Your task to perform on an android device: change notifications settings Image 0: 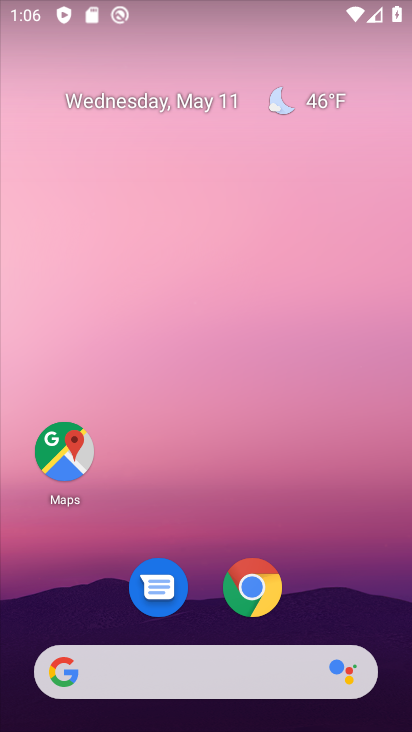
Step 0: press home button
Your task to perform on an android device: change notifications settings Image 1: 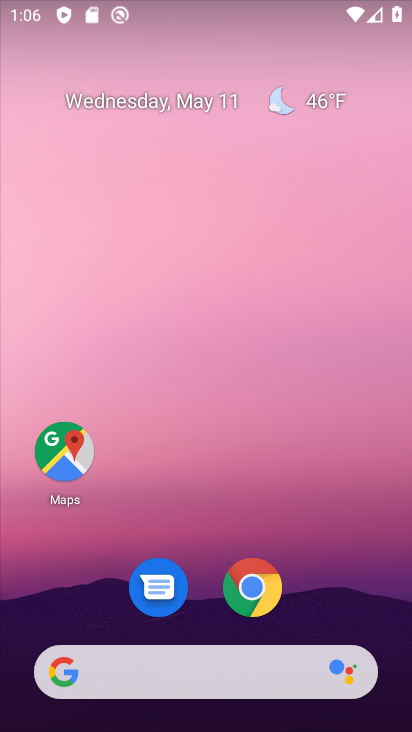
Step 1: drag from (299, 386) to (293, 4)
Your task to perform on an android device: change notifications settings Image 2: 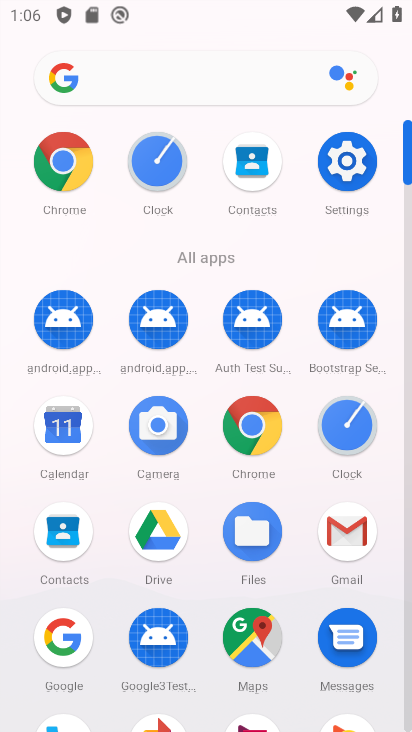
Step 2: click (335, 160)
Your task to perform on an android device: change notifications settings Image 3: 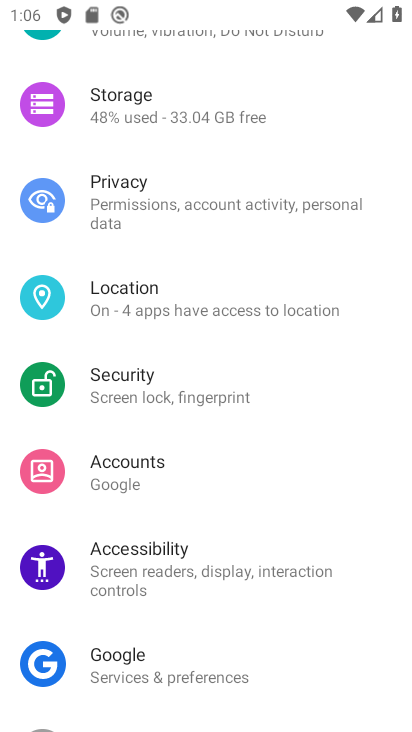
Step 3: drag from (157, 386) to (46, 696)
Your task to perform on an android device: change notifications settings Image 4: 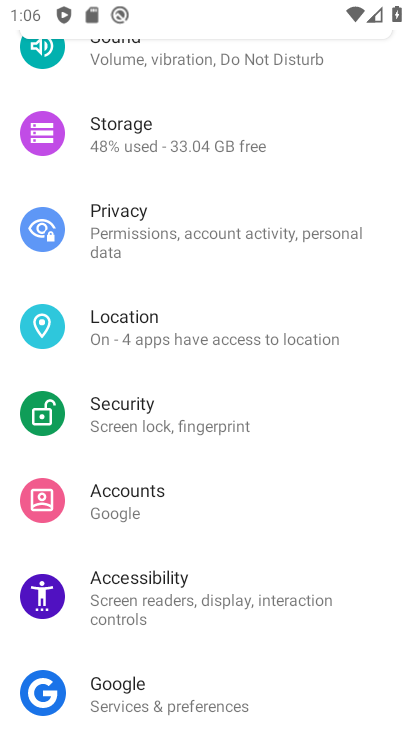
Step 4: drag from (177, 453) to (198, 718)
Your task to perform on an android device: change notifications settings Image 5: 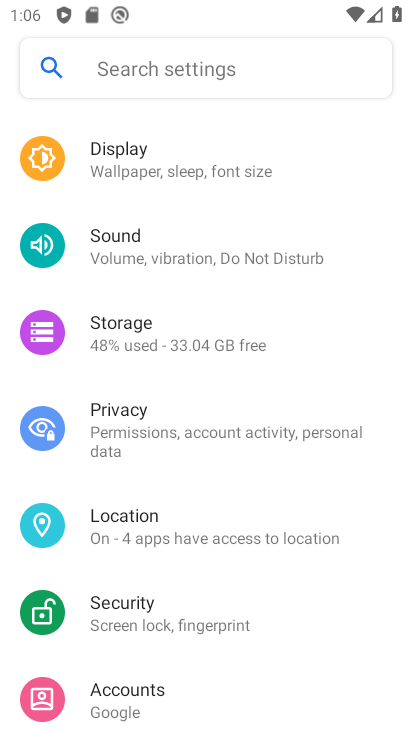
Step 5: drag from (228, 145) to (267, 670)
Your task to perform on an android device: change notifications settings Image 6: 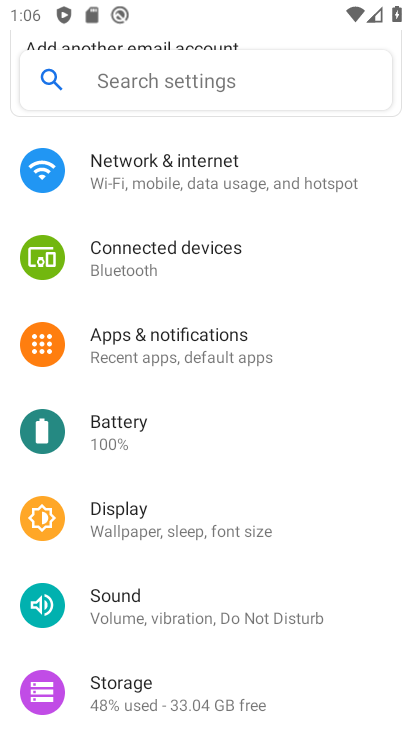
Step 6: click (169, 374)
Your task to perform on an android device: change notifications settings Image 7: 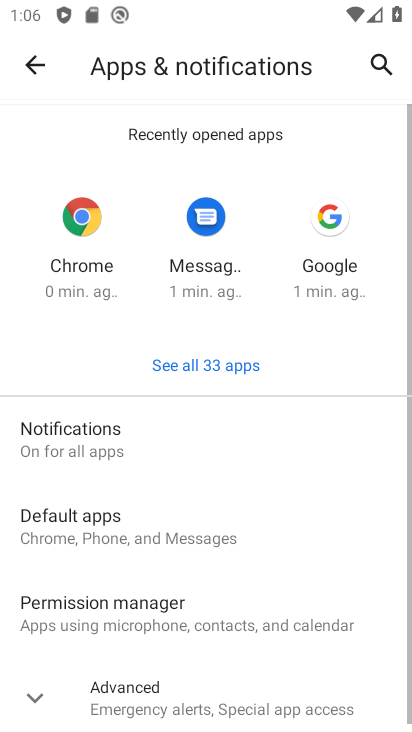
Step 7: click (168, 462)
Your task to perform on an android device: change notifications settings Image 8: 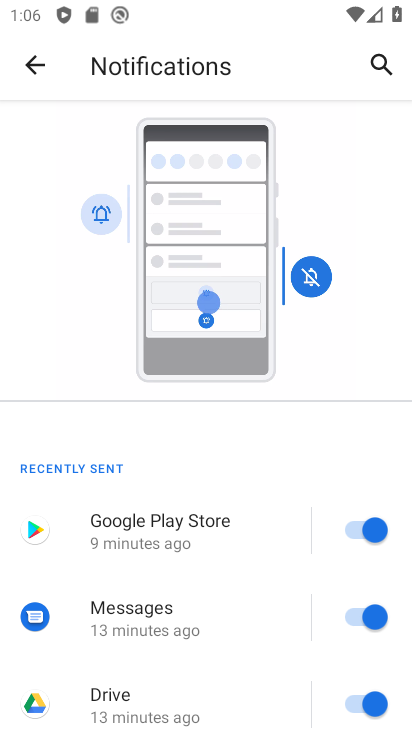
Step 8: drag from (250, 681) to (233, 240)
Your task to perform on an android device: change notifications settings Image 9: 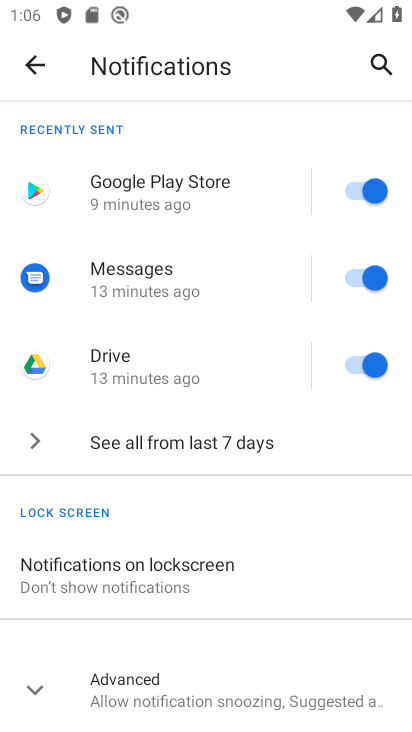
Step 9: drag from (264, 651) to (220, 526)
Your task to perform on an android device: change notifications settings Image 10: 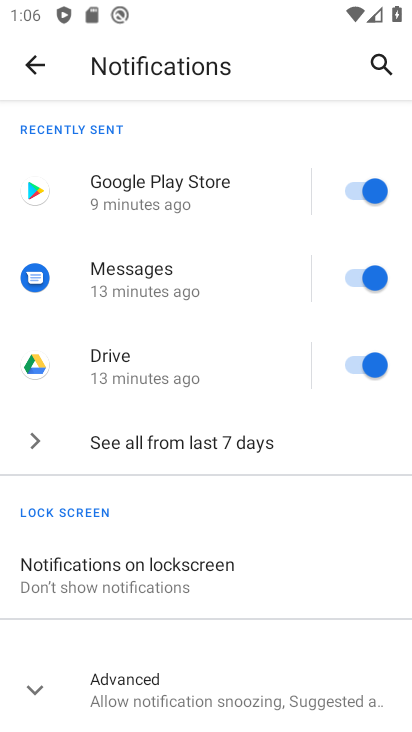
Step 10: click (267, 673)
Your task to perform on an android device: change notifications settings Image 11: 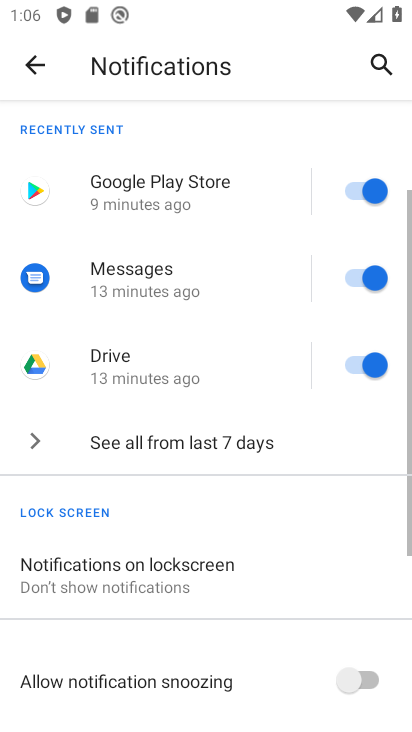
Step 11: drag from (267, 673) to (265, 168)
Your task to perform on an android device: change notifications settings Image 12: 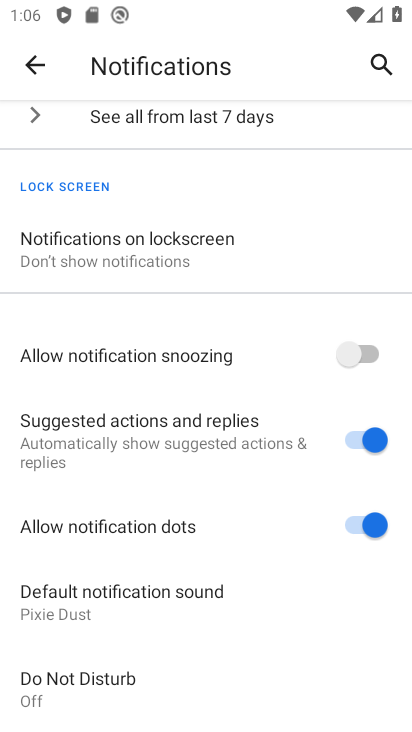
Step 12: drag from (253, 627) to (189, 489)
Your task to perform on an android device: change notifications settings Image 13: 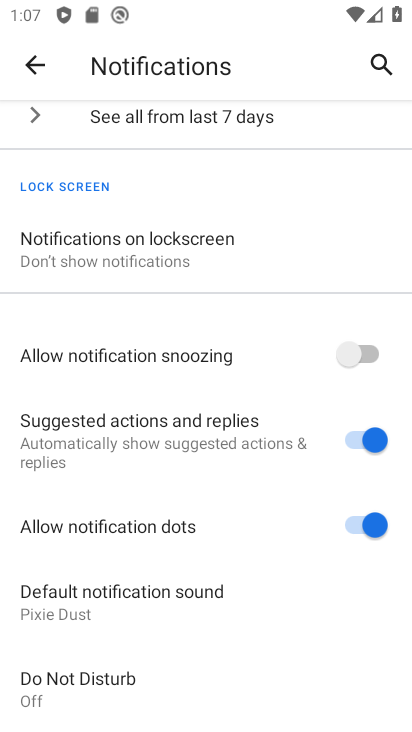
Step 13: click (364, 279)
Your task to perform on an android device: change notifications settings Image 14: 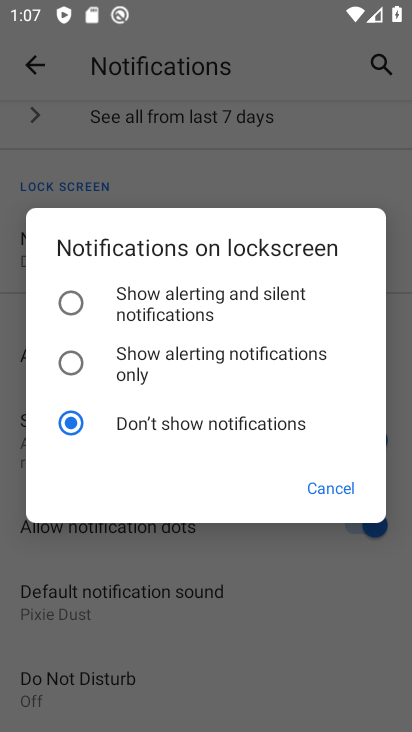
Step 14: click (298, 493)
Your task to perform on an android device: change notifications settings Image 15: 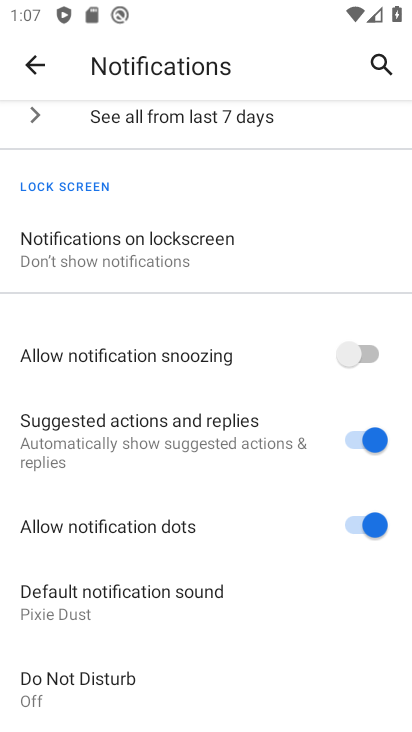
Step 15: click (358, 435)
Your task to perform on an android device: change notifications settings Image 16: 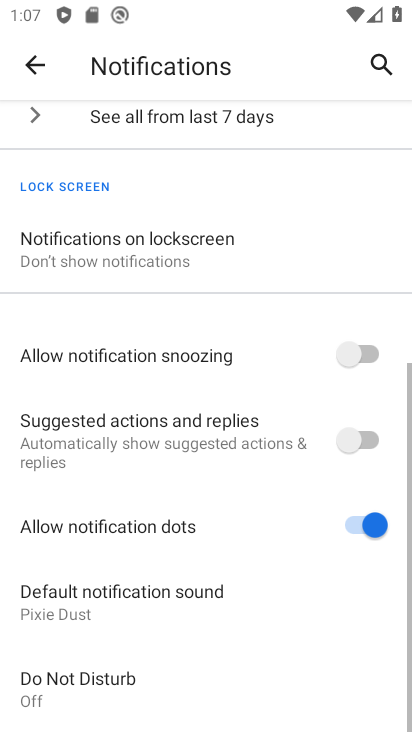
Step 16: click (373, 530)
Your task to perform on an android device: change notifications settings Image 17: 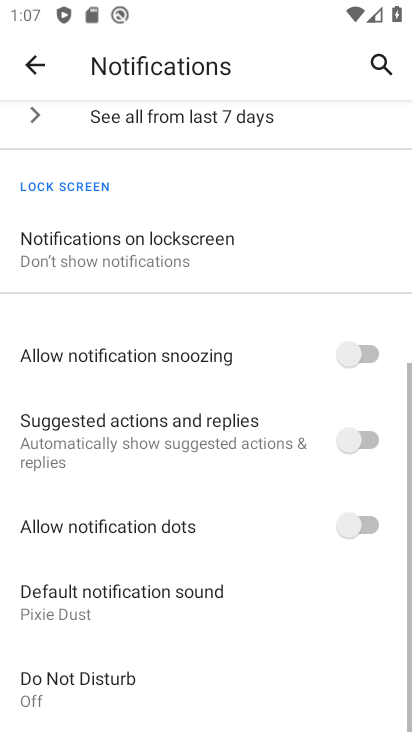
Step 17: task complete